Your task to perform on an android device: What's on my calendar today? Image 0: 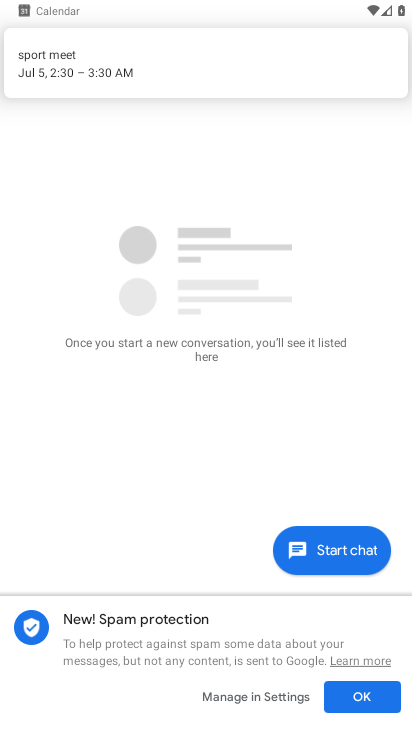
Step 0: press home button
Your task to perform on an android device: What's on my calendar today? Image 1: 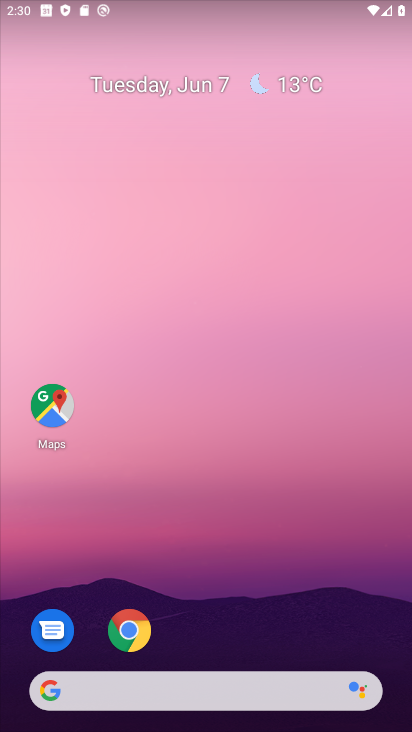
Step 1: drag from (173, 690) to (190, 223)
Your task to perform on an android device: What's on my calendar today? Image 2: 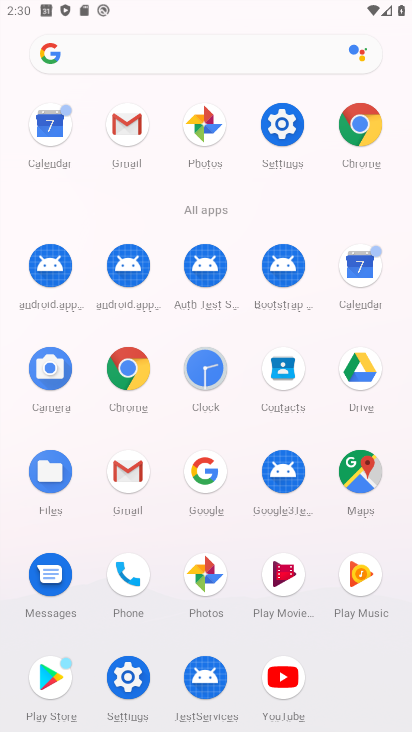
Step 2: click (357, 270)
Your task to perform on an android device: What's on my calendar today? Image 3: 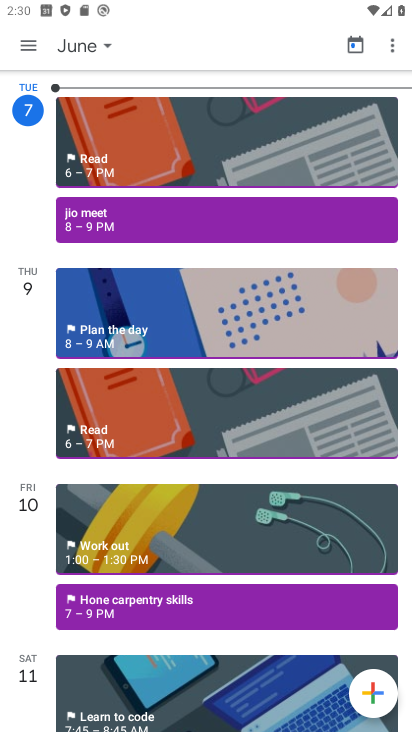
Step 3: task complete